Your task to perform on an android device: turn on wifi Image 0: 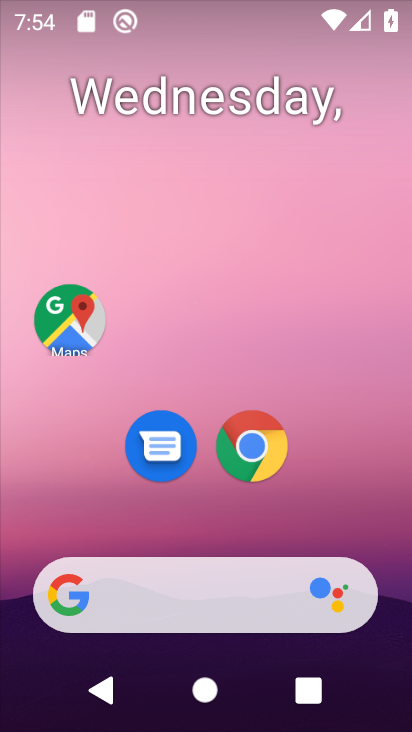
Step 0: press home button
Your task to perform on an android device: turn on wifi Image 1: 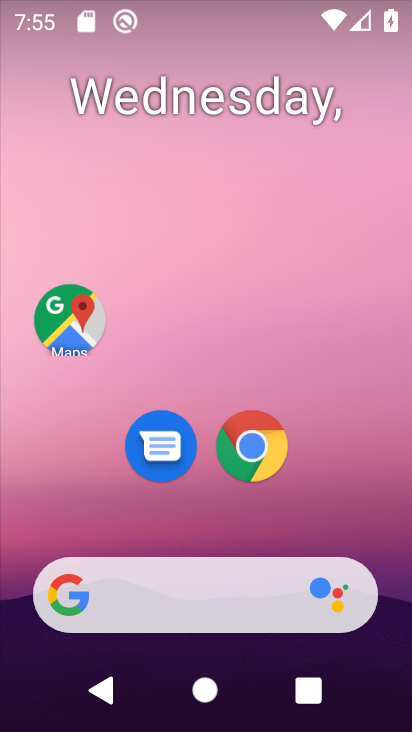
Step 1: task complete